Your task to perform on an android device: change your default location settings in chrome Image 0: 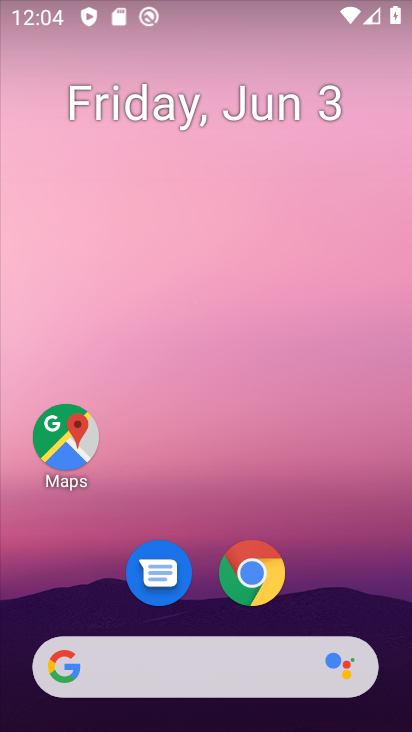
Step 0: task complete